Your task to perform on an android device: open sync settings in chrome Image 0: 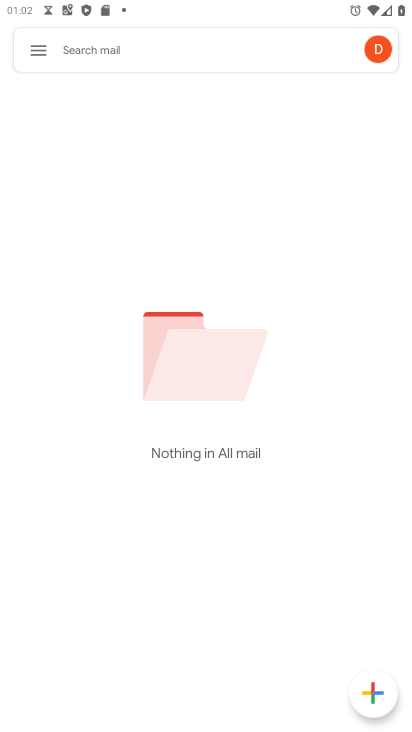
Step 0: press home button
Your task to perform on an android device: open sync settings in chrome Image 1: 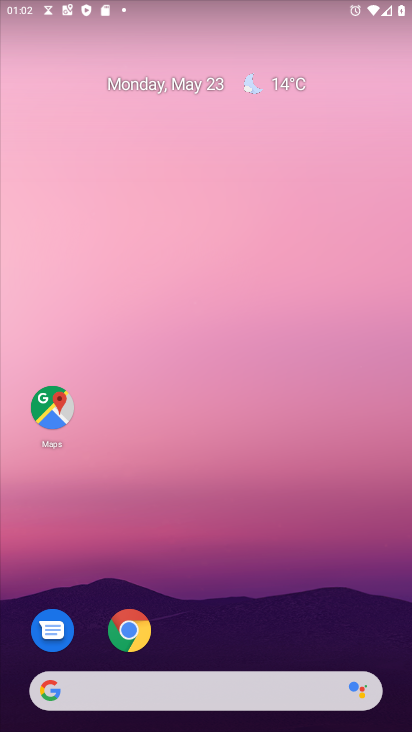
Step 1: click (148, 620)
Your task to perform on an android device: open sync settings in chrome Image 2: 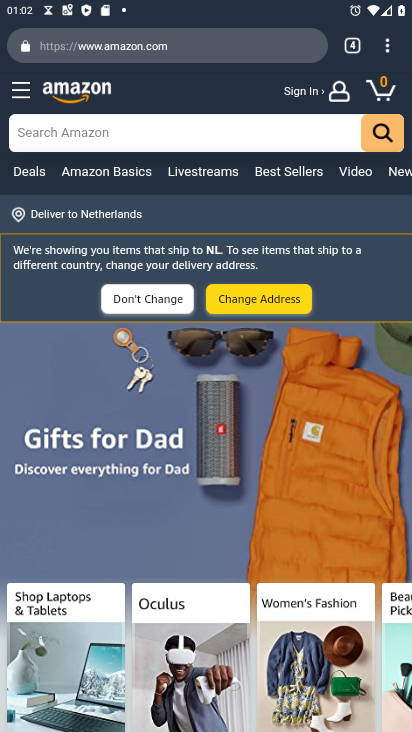
Step 2: click (387, 42)
Your task to perform on an android device: open sync settings in chrome Image 3: 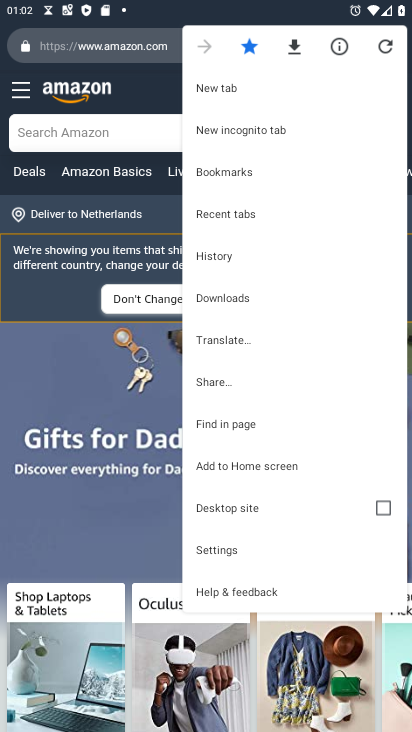
Step 3: click (255, 545)
Your task to perform on an android device: open sync settings in chrome Image 4: 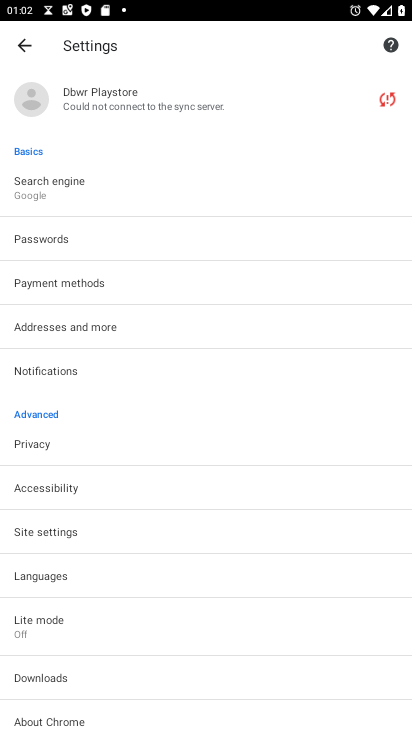
Step 4: drag from (205, 624) to (232, 355)
Your task to perform on an android device: open sync settings in chrome Image 5: 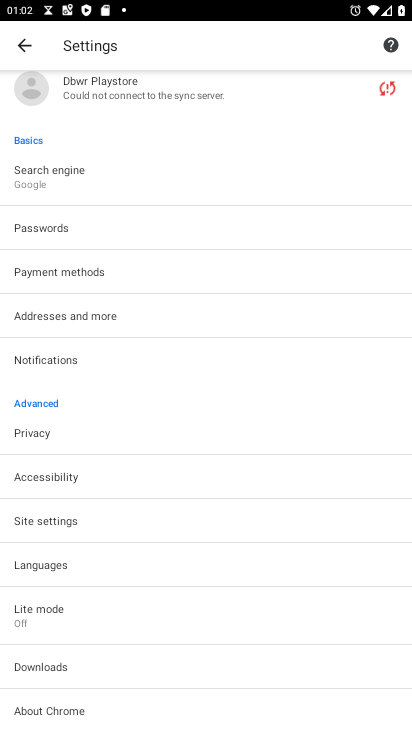
Step 5: drag from (201, 559) to (224, 236)
Your task to perform on an android device: open sync settings in chrome Image 6: 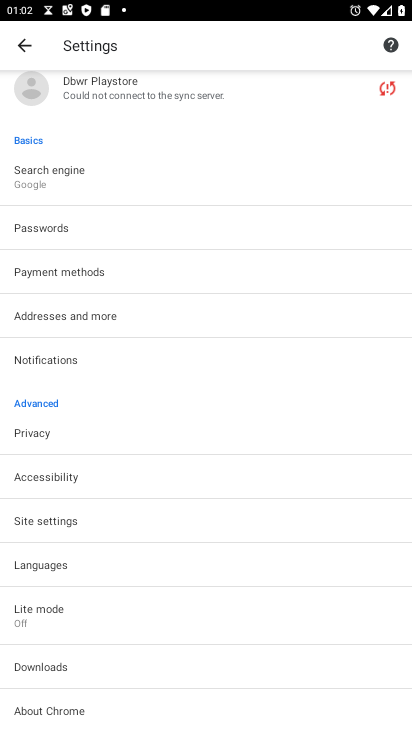
Step 6: click (124, 530)
Your task to perform on an android device: open sync settings in chrome Image 7: 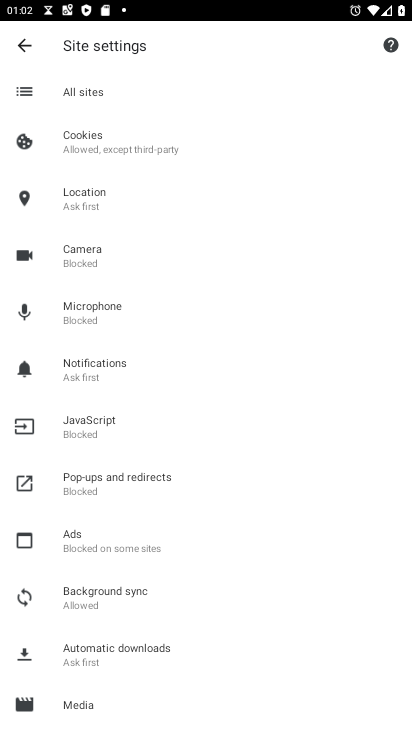
Step 7: click (185, 591)
Your task to perform on an android device: open sync settings in chrome Image 8: 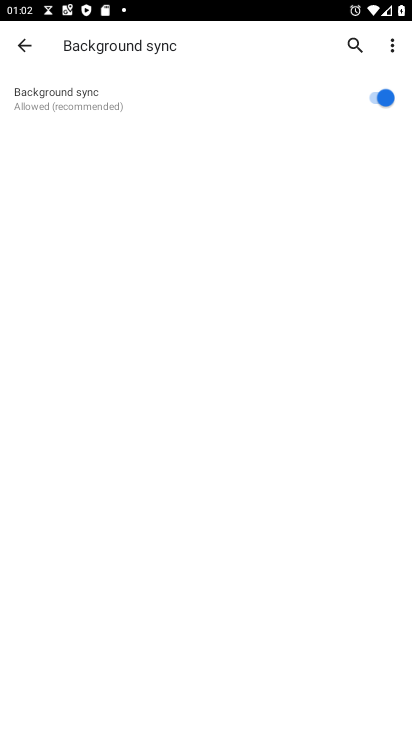
Step 8: task complete